Your task to perform on an android device: turn off translation in the chrome app Image 0: 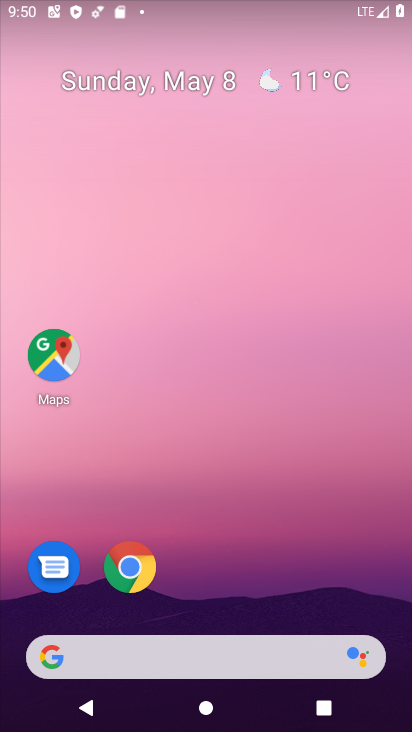
Step 0: click (133, 575)
Your task to perform on an android device: turn off translation in the chrome app Image 1: 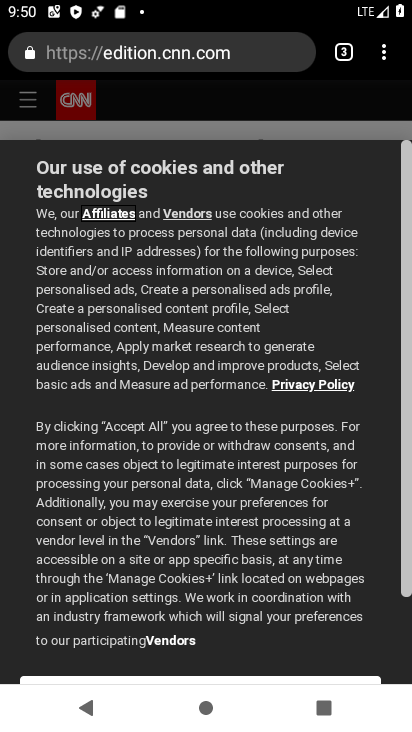
Step 1: drag from (385, 54) to (220, 593)
Your task to perform on an android device: turn off translation in the chrome app Image 2: 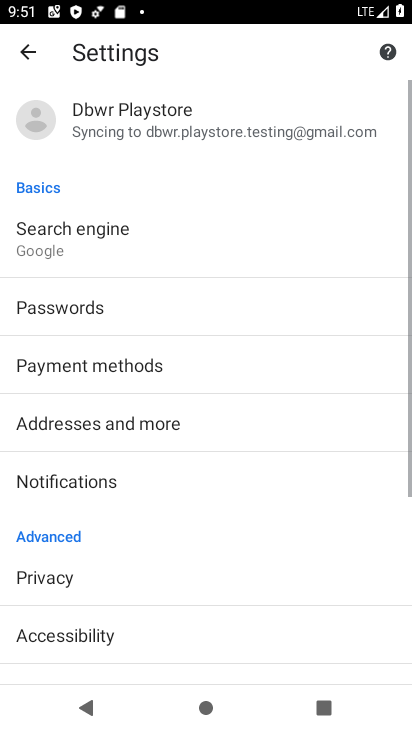
Step 2: drag from (120, 621) to (267, 122)
Your task to perform on an android device: turn off translation in the chrome app Image 3: 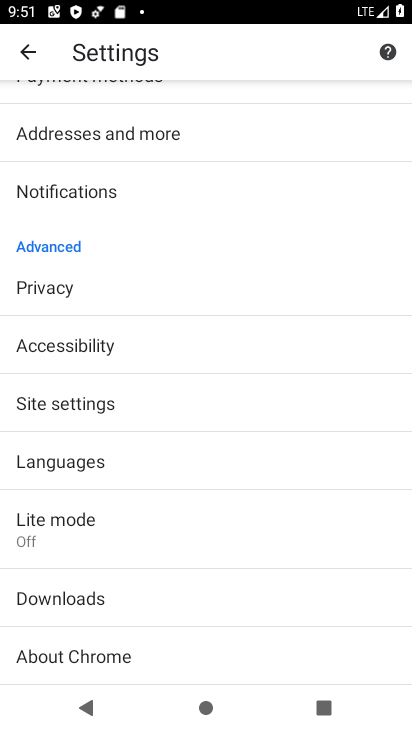
Step 3: click (98, 465)
Your task to perform on an android device: turn off translation in the chrome app Image 4: 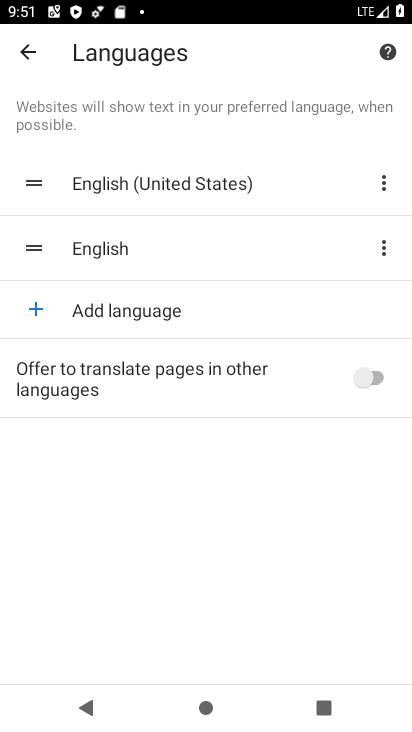
Step 4: task complete